Your task to perform on an android device: empty trash in google photos Image 0: 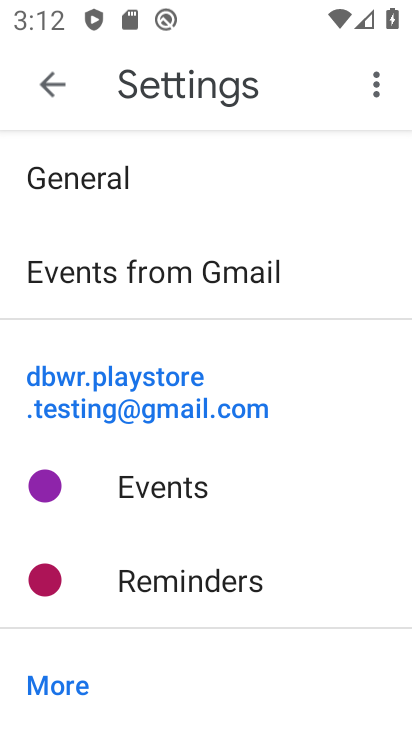
Step 0: press back button
Your task to perform on an android device: empty trash in google photos Image 1: 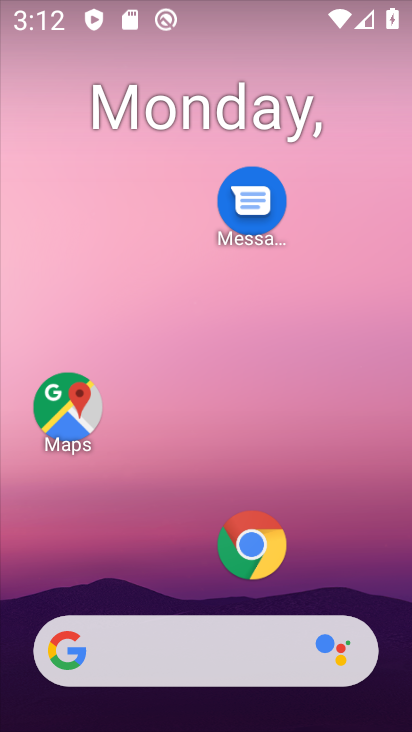
Step 1: drag from (139, 533) to (254, 84)
Your task to perform on an android device: empty trash in google photos Image 2: 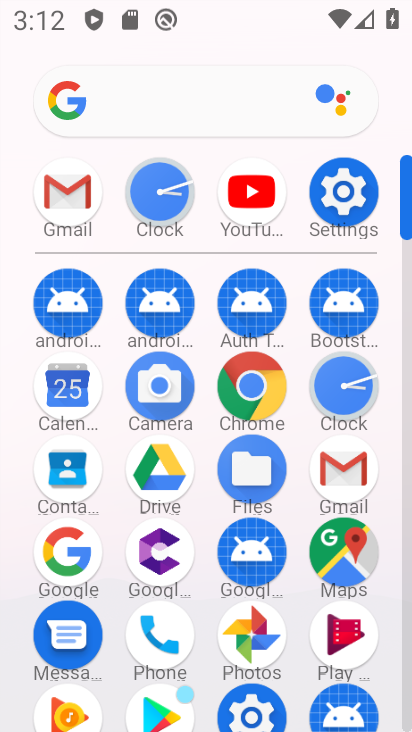
Step 2: click (267, 619)
Your task to perform on an android device: empty trash in google photos Image 3: 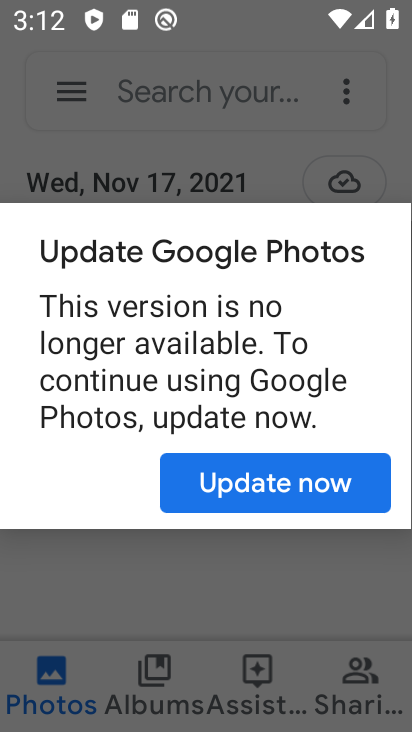
Step 3: click (235, 472)
Your task to perform on an android device: empty trash in google photos Image 4: 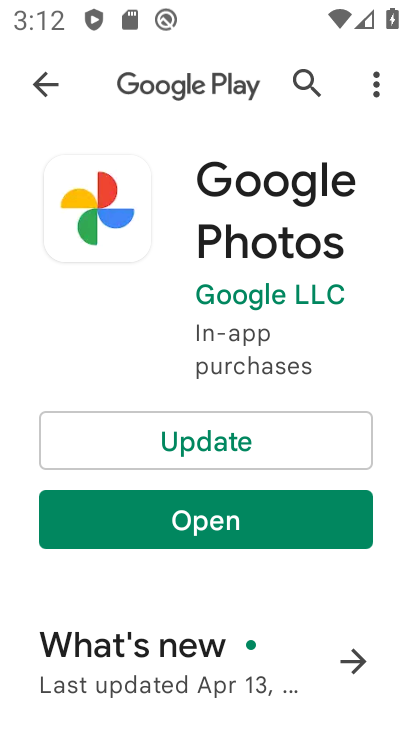
Step 4: click (225, 518)
Your task to perform on an android device: empty trash in google photos Image 5: 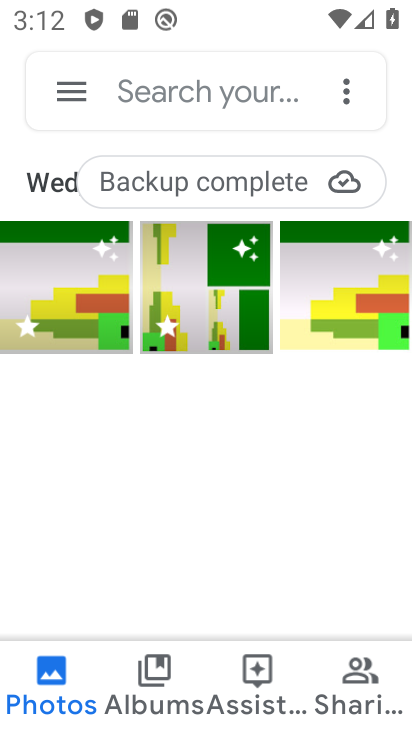
Step 5: click (60, 90)
Your task to perform on an android device: empty trash in google photos Image 6: 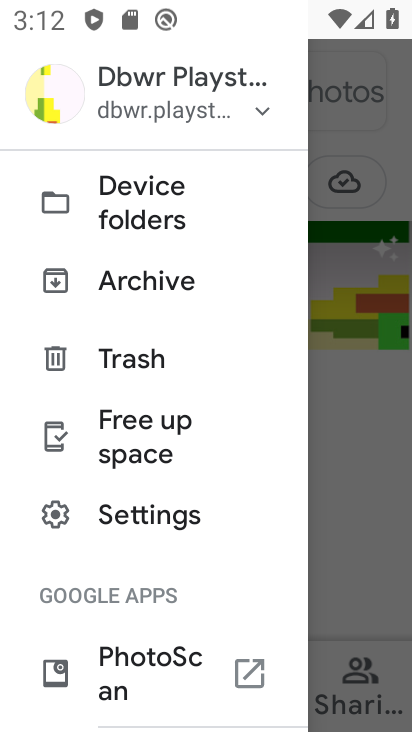
Step 6: click (123, 366)
Your task to perform on an android device: empty trash in google photos Image 7: 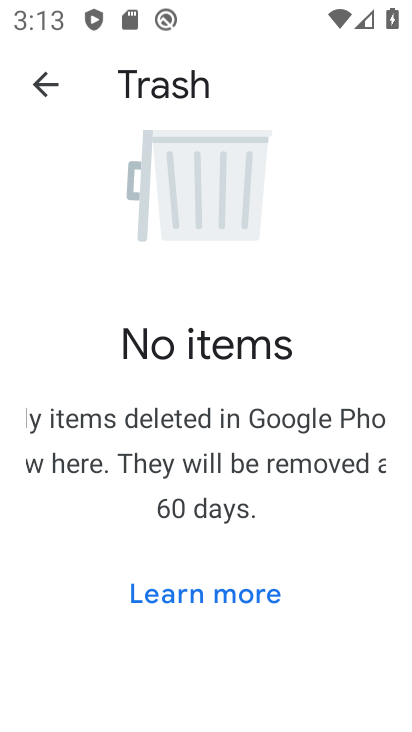
Step 7: task complete